Your task to perform on an android device: turn on airplane mode Image 0: 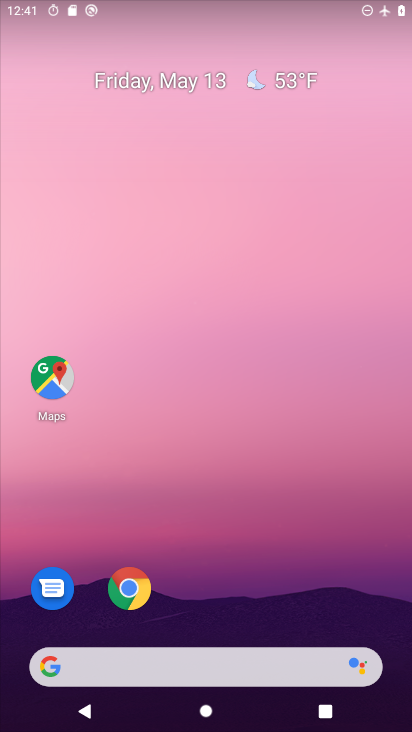
Step 0: drag from (278, 9) to (317, 558)
Your task to perform on an android device: turn on airplane mode Image 1: 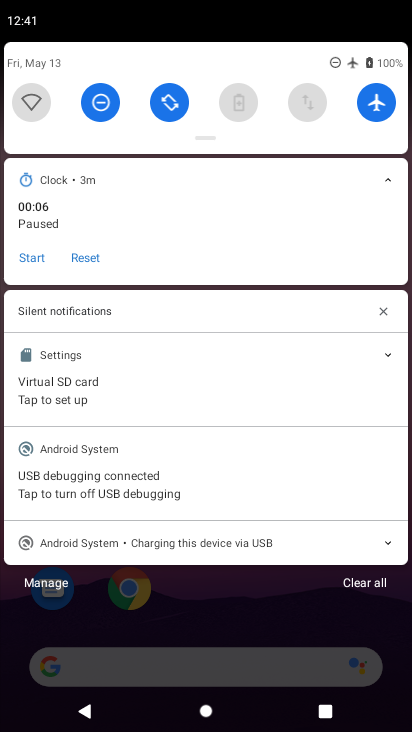
Step 1: task complete